Your task to perform on an android device: What's the weather? Image 0: 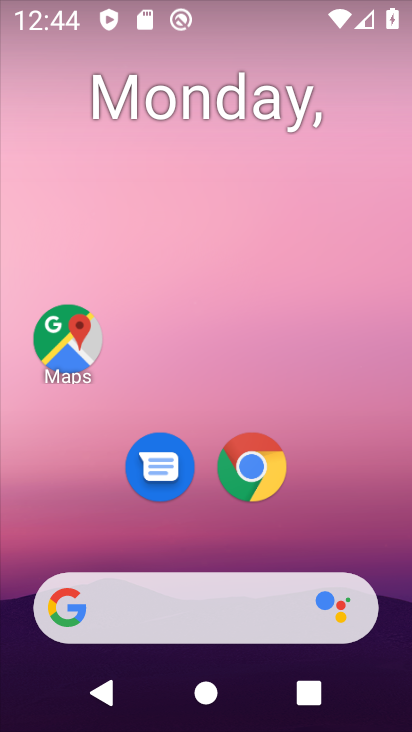
Step 0: drag from (210, 544) to (224, 127)
Your task to perform on an android device: What's the weather? Image 1: 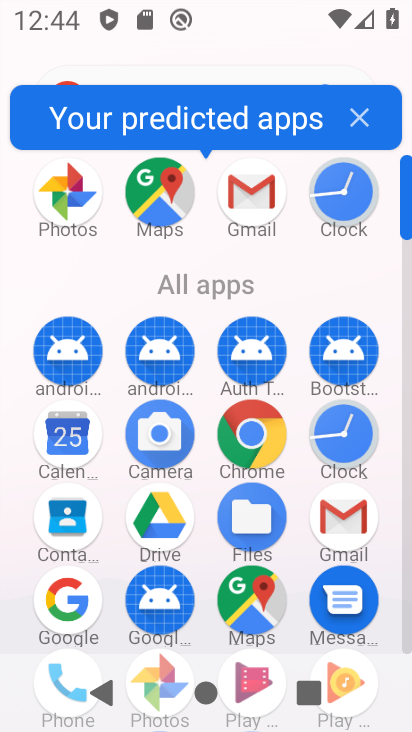
Step 1: click (73, 596)
Your task to perform on an android device: What's the weather? Image 2: 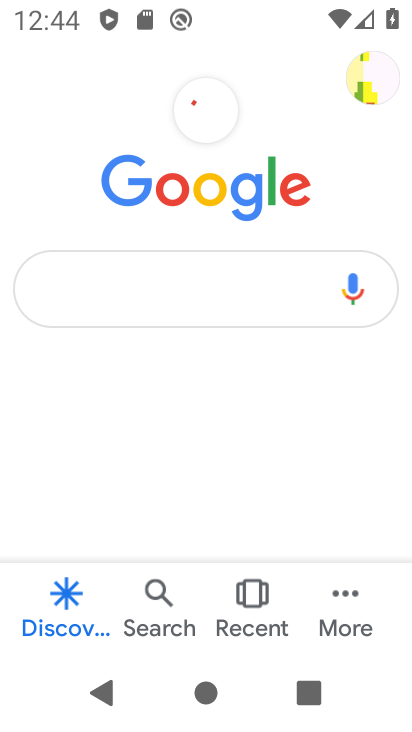
Step 2: click (140, 292)
Your task to perform on an android device: What's the weather? Image 3: 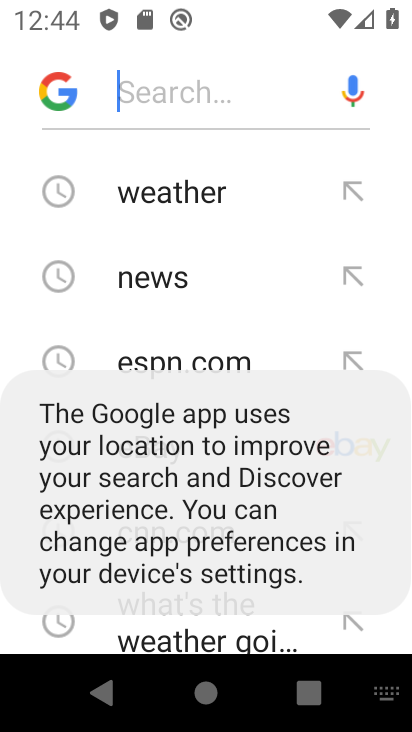
Step 3: click (154, 180)
Your task to perform on an android device: What's the weather? Image 4: 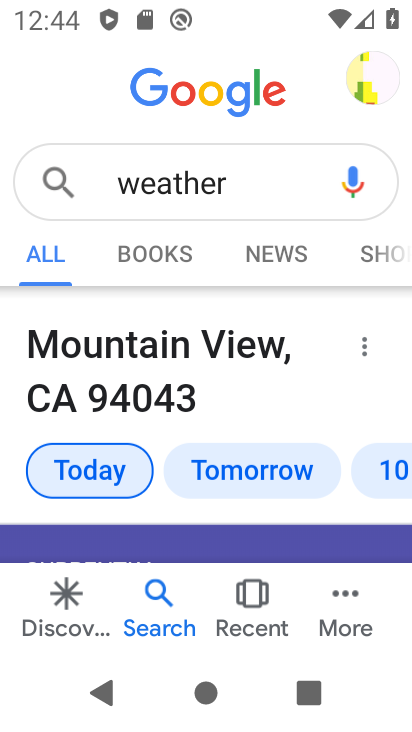
Step 4: task complete